Your task to perform on an android device: clear history in the chrome app Image 0: 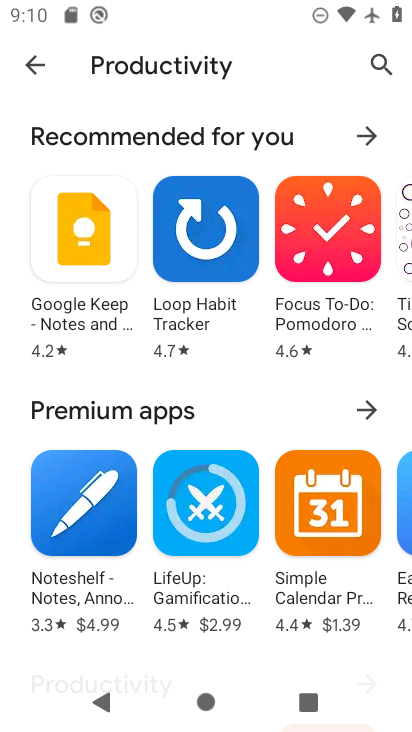
Step 0: press home button
Your task to perform on an android device: clear history in the chrome app Image 1: 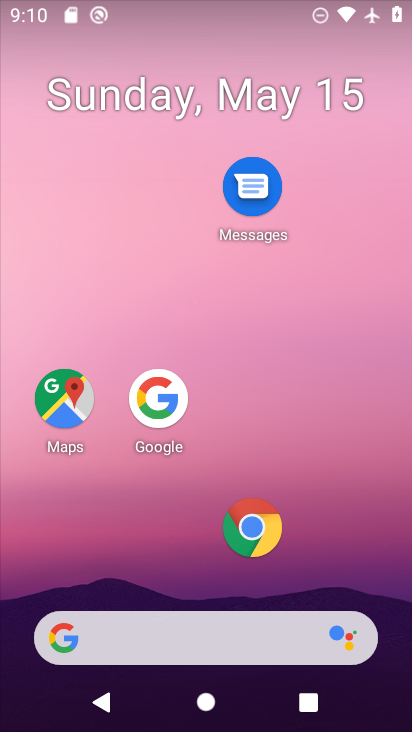
Step 1: click (255, 541)
Your task to perform on an android device: clear history in the chrome app Image 2: 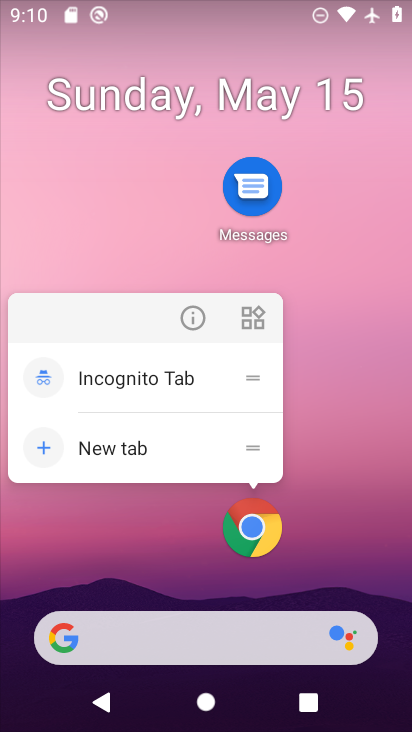
Step 2: click (255, 532)
Your task to perform on an android device: clear history in the chrome app Image 3: 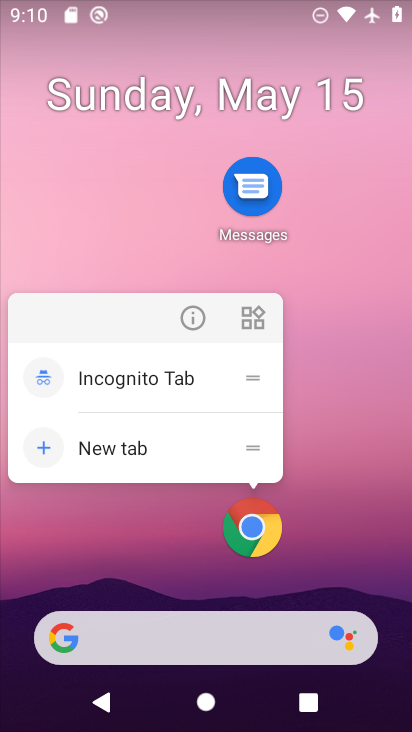
Step 3: click (255, 532)
Your task to perform on an android device: clear history in the chrome app Image 4: 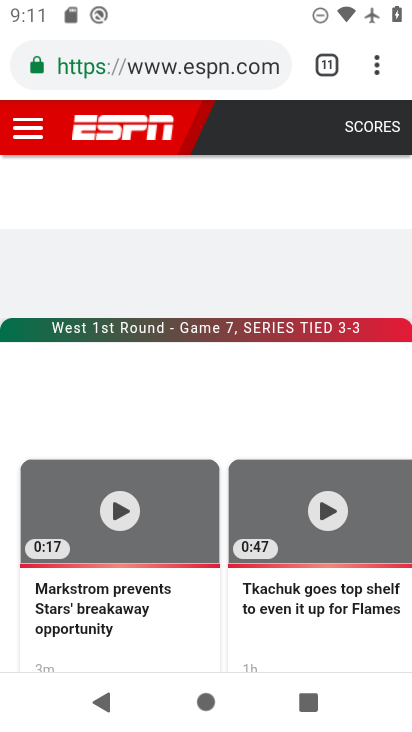
Step 4: drag from (373, 76) to (174, 377)
Your task to perform on an android device: clear history in the chrome app Image 5: 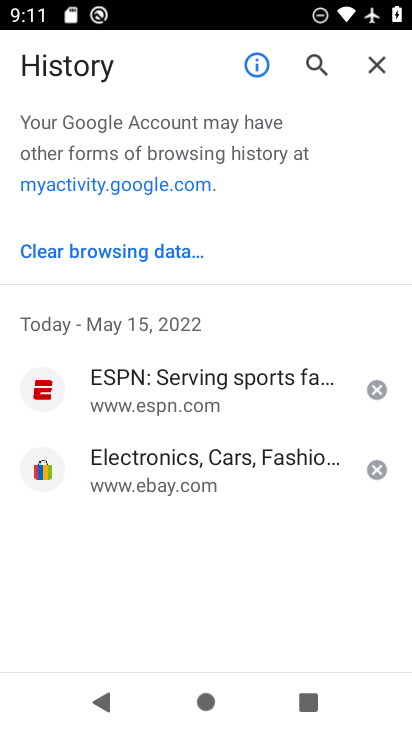
Step 5: click (125, 252)
Your task to perform on an android device: clear history in the chrome app Image 6: 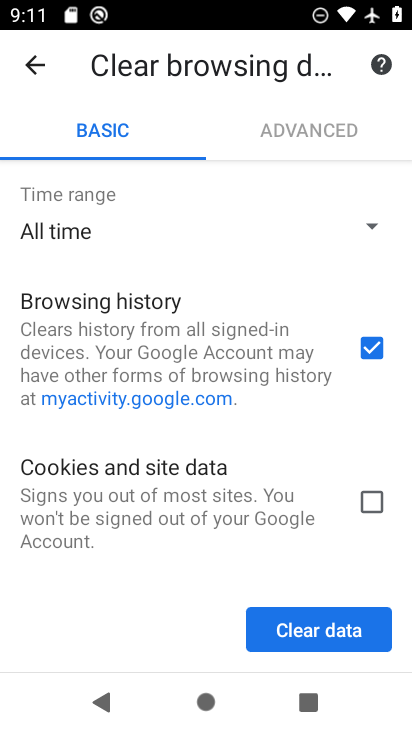
Step 6: click (363, 495)
Your task to perform on an android device: clear history in the chrome app Image 7: 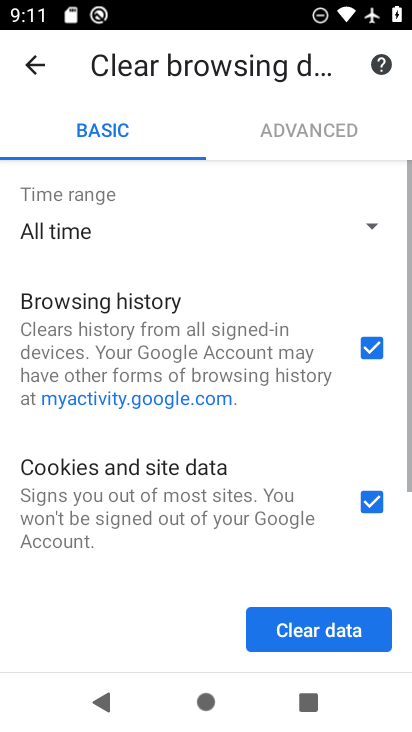
Step 7: drag from (241, 512) to (350, 250)
Your task to perform on an android device: clear history in the chrome app Image 8: 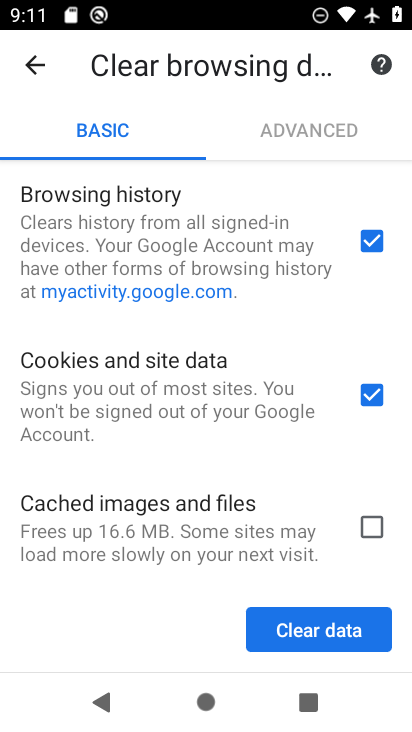
Step 8: click (366, 532)
Your task to perform on an android device: clear history in the chrome app Image 9: 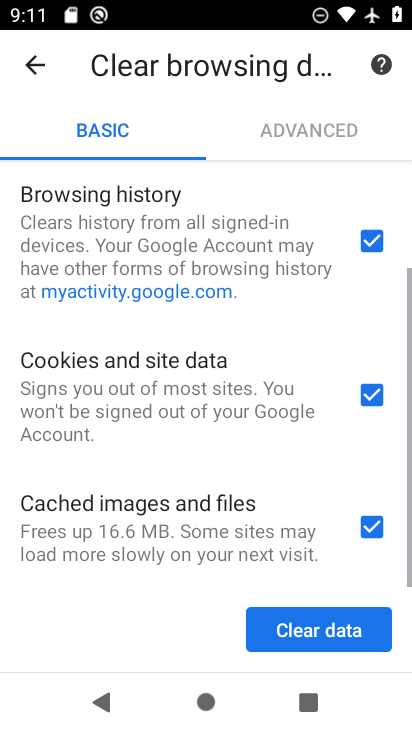
Step 9: click (323, 632)
Your task to perform on an android device: clear history in the chrome app Image 10: 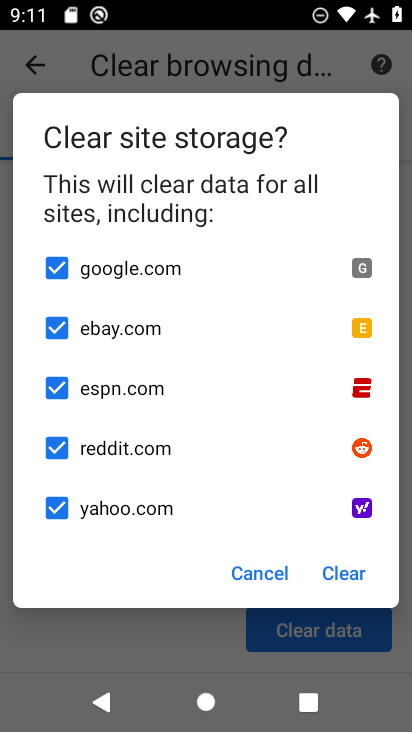
Step 10: click (327, 577)
Your task to perform on an android device: clear history in the chrome app Image 11: 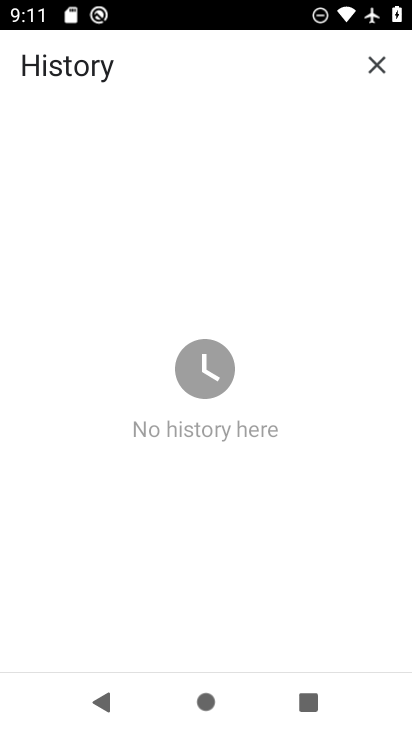
Step 11: task complete